Your task to perform on an android device: change the clock display to show seconds Image 0: 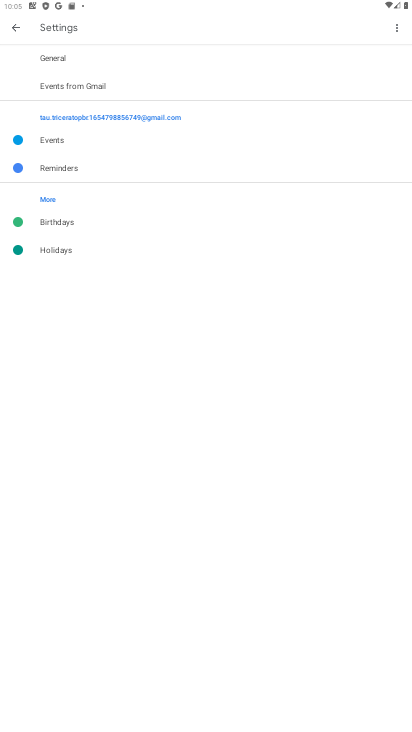
Step 0: press home button
Your task to perform on an android device: change the clock display to show seconds Image 1: 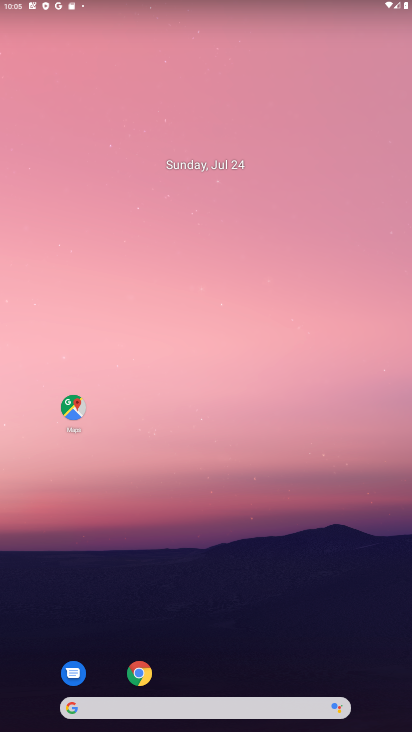
Step 1: drag from (59, 624) to (240, 103)
Your task to perform on an android device: change the clock display to show seconds Image 2: 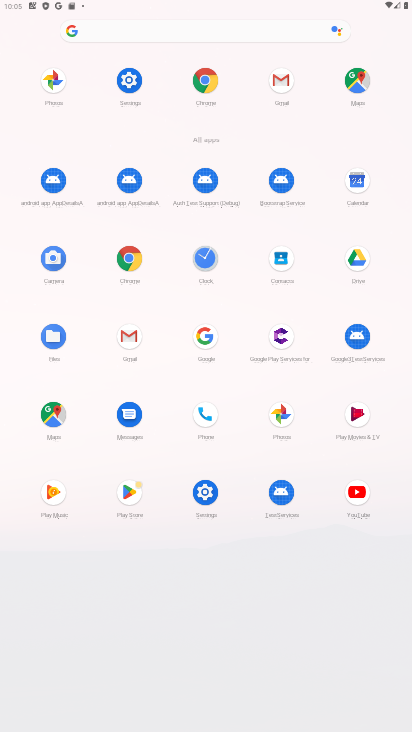
Step 2: click (204, 256)
Your task to perform on an android device: change the clock display to show seconds Image 3: 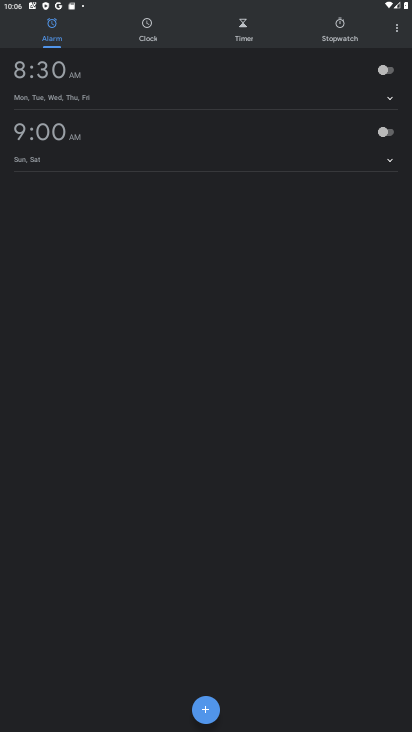
Step 3: click (399, 30)
Your task to perform on an android device: change the clock display to show seconds Image 4: 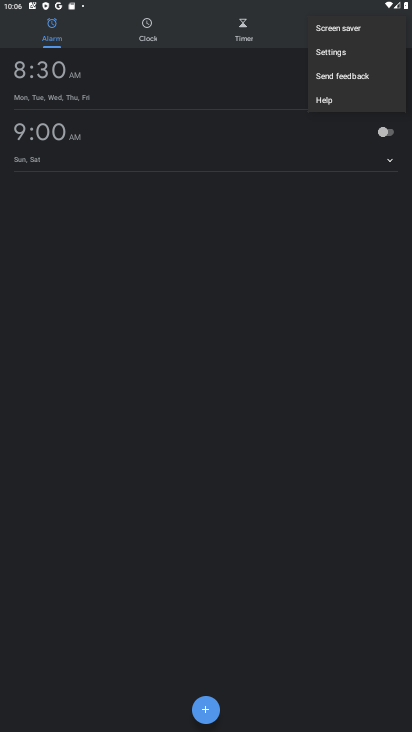
Step 4: click (337, 54)
Your task to perform on an android device: change the clock display to show seconds Image 5: 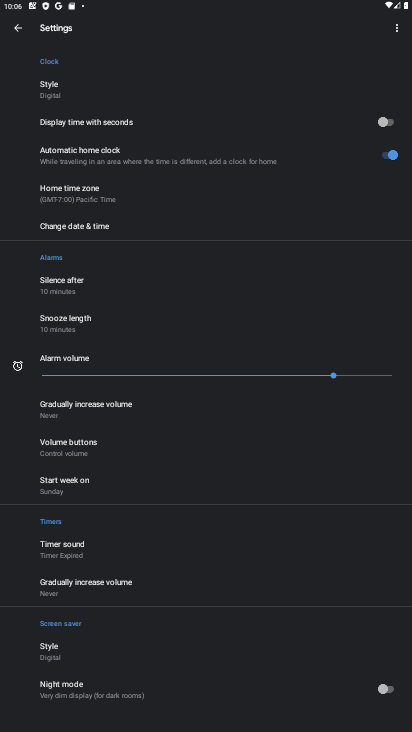
Step 5: click (80, 90)
Your task to perform on an android device: change the clock display to show seconds Image 6: 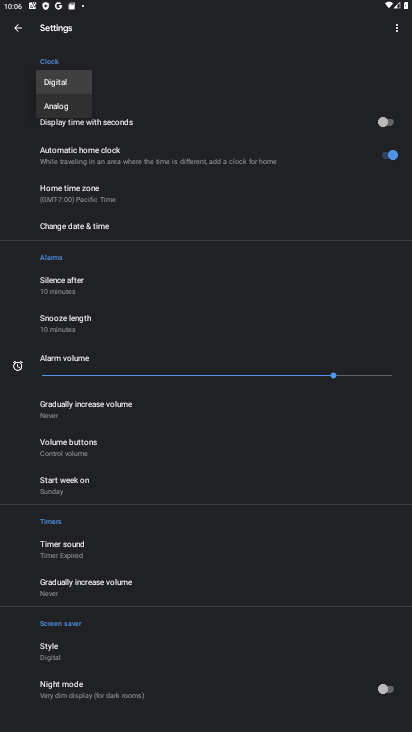
Step 6: click (70, 104)
Your task to perform on an android device: change the clock display to show seconds Image 7: 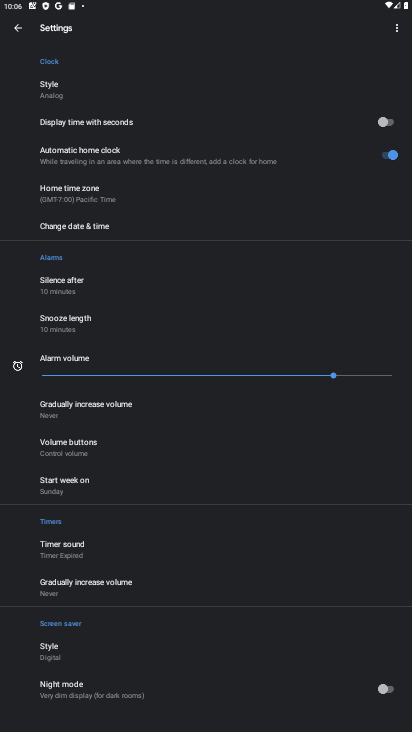
Step 7: task complete